Your task to perform on an android device: Open notification settings Image 0: 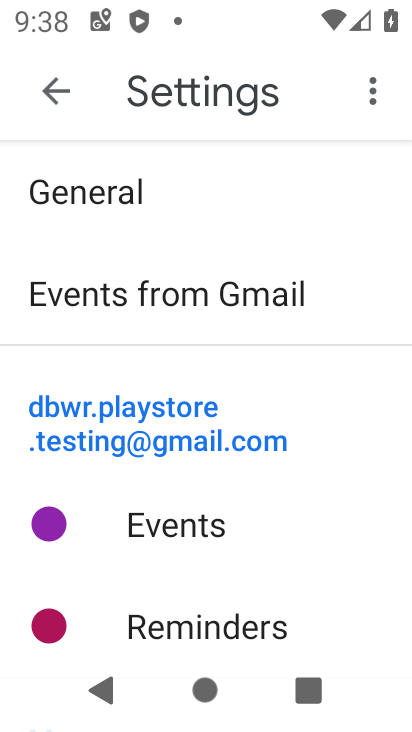
Step 0: press back button
Your task to perform on an android device: Open notification settings Image 1: 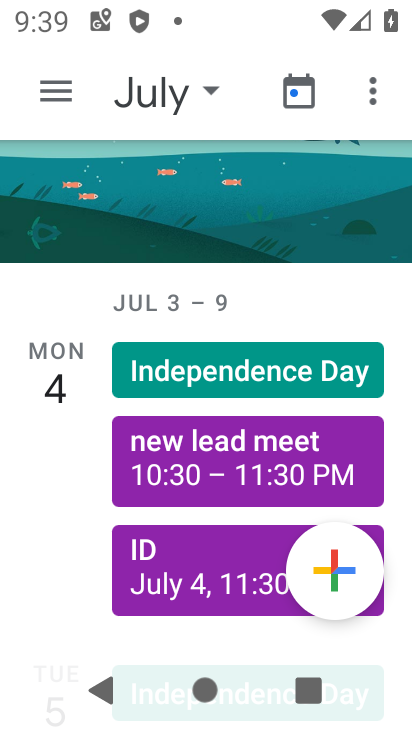
Step 1: press back button
Your task to perform on an android device: Open notification settings Image 2: 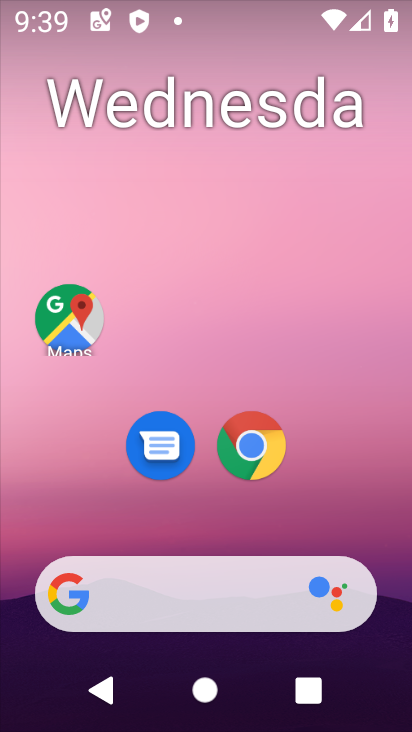
Step 2: drag from (220, 522) to (313, 59)
Your task to perform on an android device: Open notification settings Image 3: 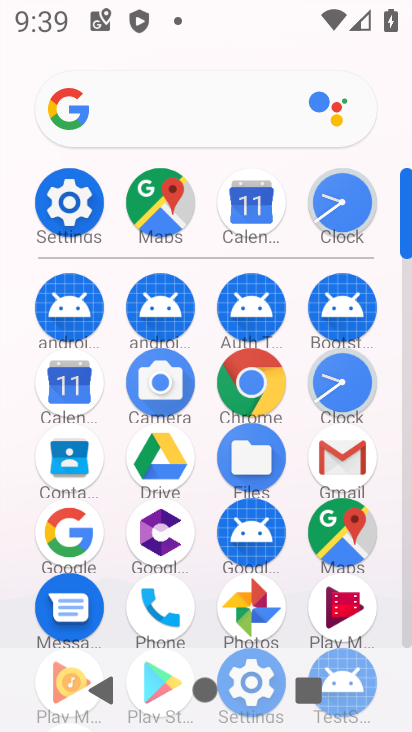
Step 3: click (67, 195)
Your task to perform on an android device: Open notification settings Image 4: 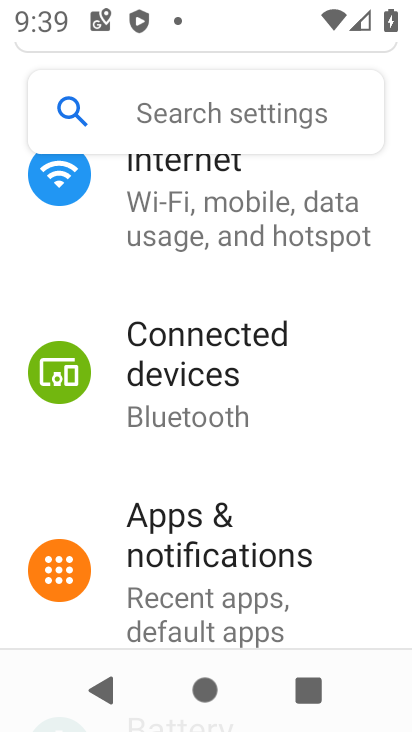
Step 4: drag from (229, 239) to (229, 645)
Your task to perform on an android device: Open notification settings Image 5: 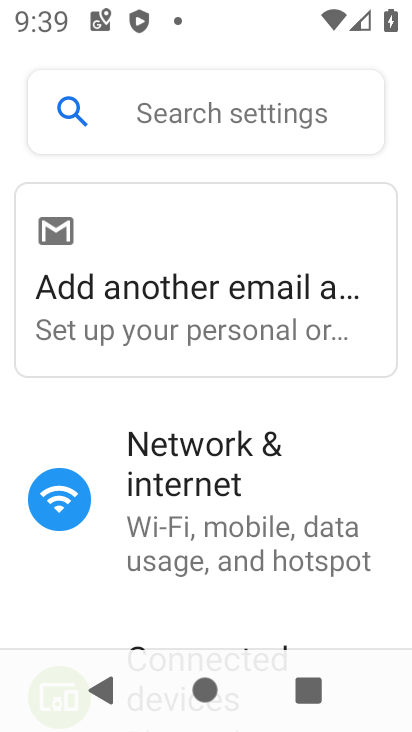
Step 5: drag from (207, 555) to (261, 280)
Your task to perform on an android device: Open notification settings Image 6: 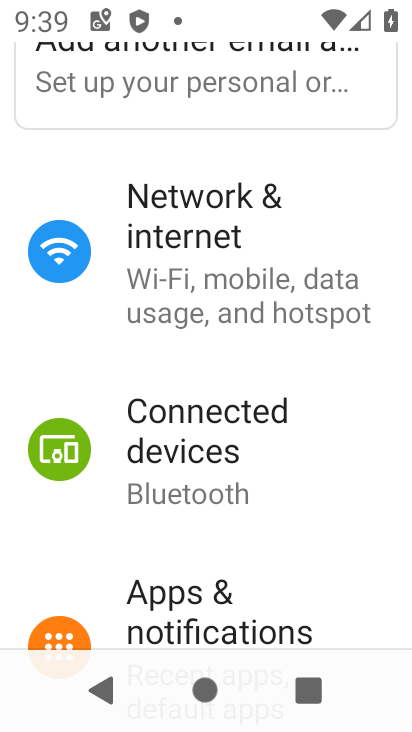
Step 6: click (193, 613)
Your task to perform on an android device: Open notification settings Image 7: 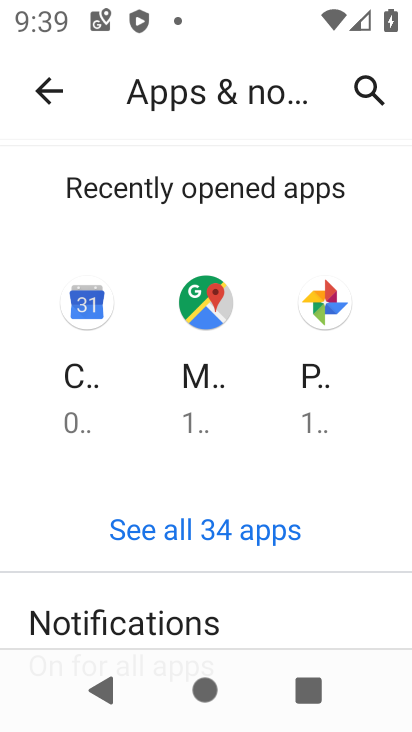
Step 7: task complete